Your task to perform on an android device: Go to location settings Image 0: 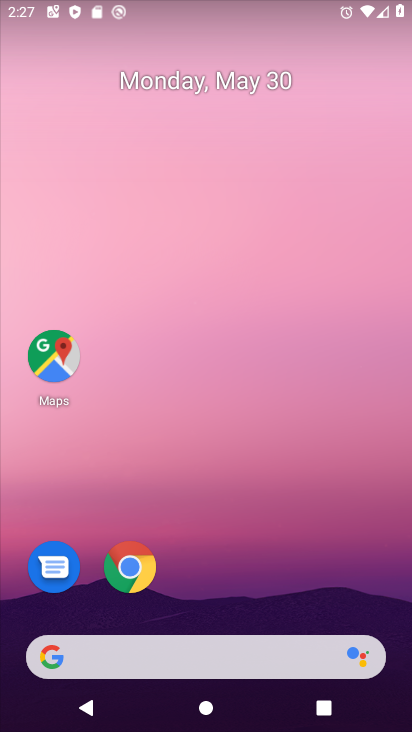
Step 0: drag from (246, 578) to (272, 17)
Your task to perform on an android device: Go to location settings Image 1: 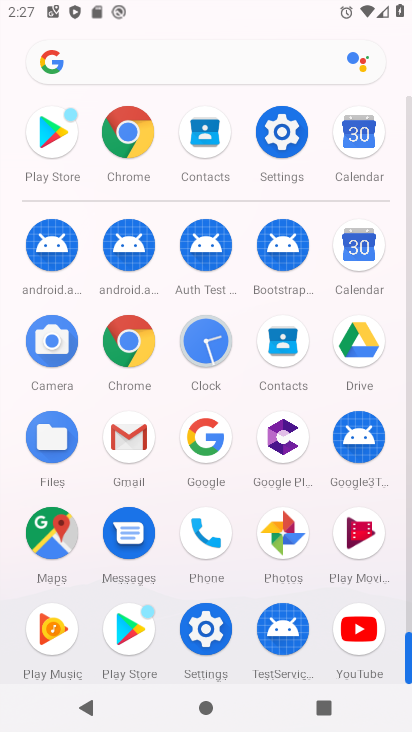
Step 1: click (281, 167)
Your task to perform on an android device: Go to location settings Image 2: 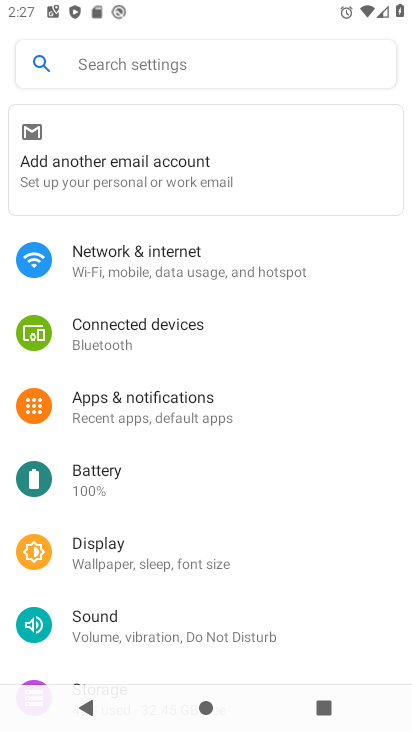
Step 2: drag from (203, 558) to (229, 292)
Your task to perform on an android device: Go to location settings Image 3: 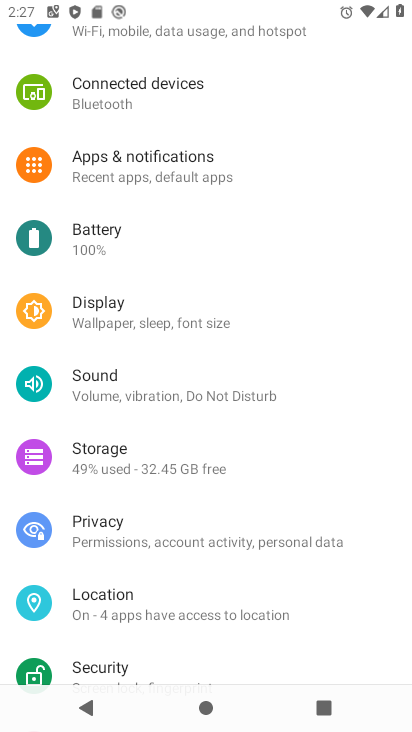
Step 3: click (151, 603)
Your task to perform on an android device: Go to location settings Image 4: 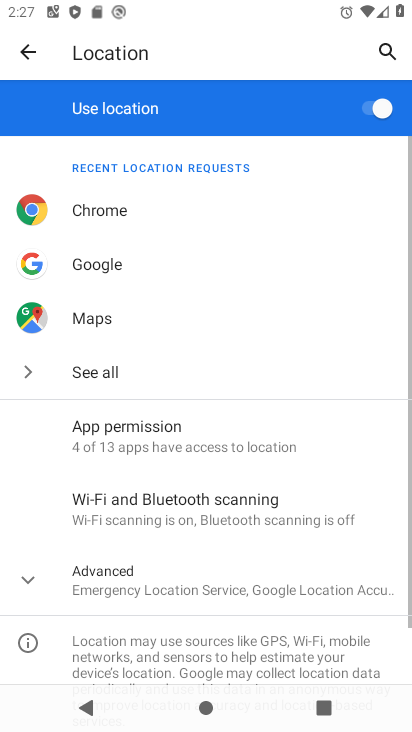
Step 4: task complete